Your task to perform on an android device: see tabs open on other devices in the chrome app Image 0: 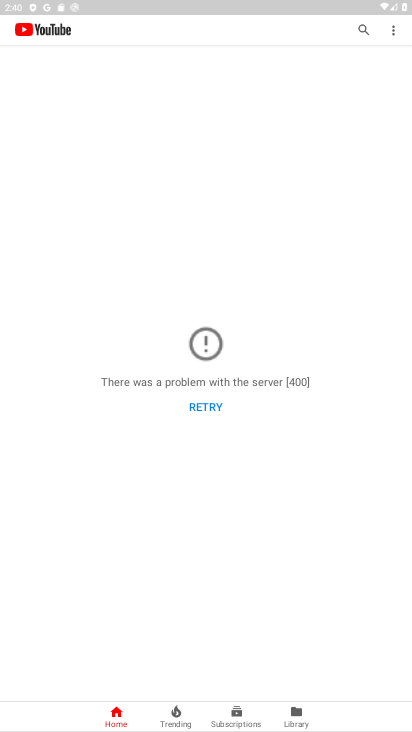
Step 0: press home button
Your task to perform on an android device: see tabs open on other devices in the chrome app Image 1: 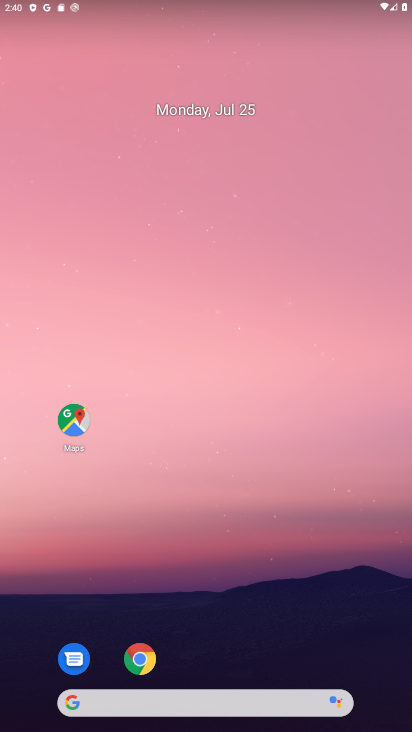
Step 1: click (147, 656)
Your task to perform on an android device: see tabs open on other devices in the chrome app Image 2: 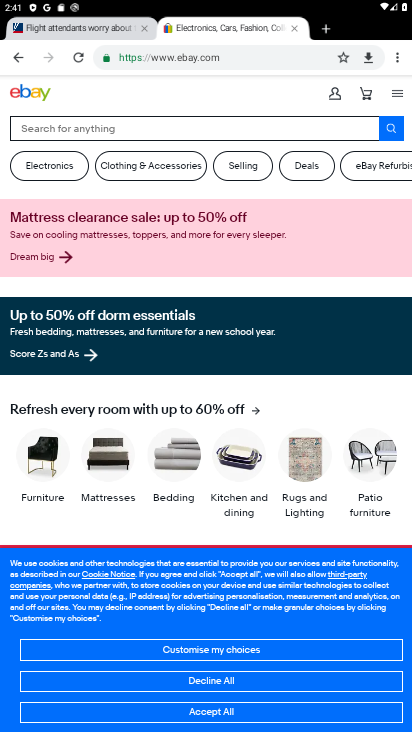
Step 2: click (324, 34)
Your task to perform on an android device: see tabs open on other devices in the chrome app Image 3: 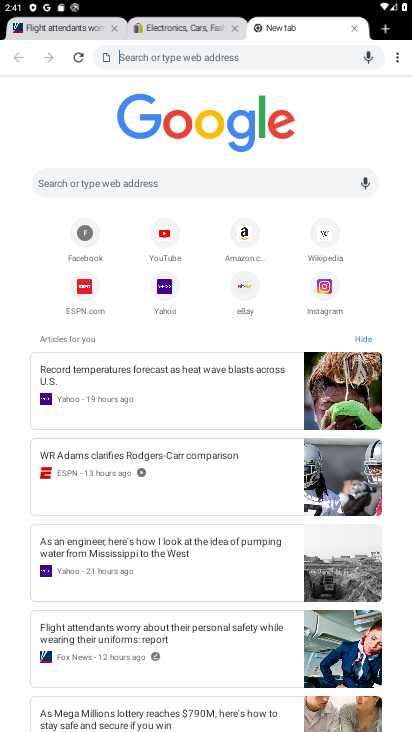
Step 3: task complete